Your task to perform on an android device: refresh tabs in the chrome app Image 0: 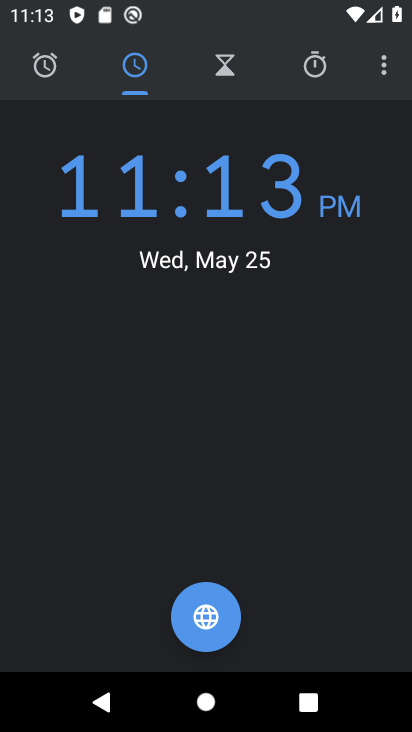
Step 0: press home button
Your task to perform on an android device: refresh tabs in the chrome app Image 1: 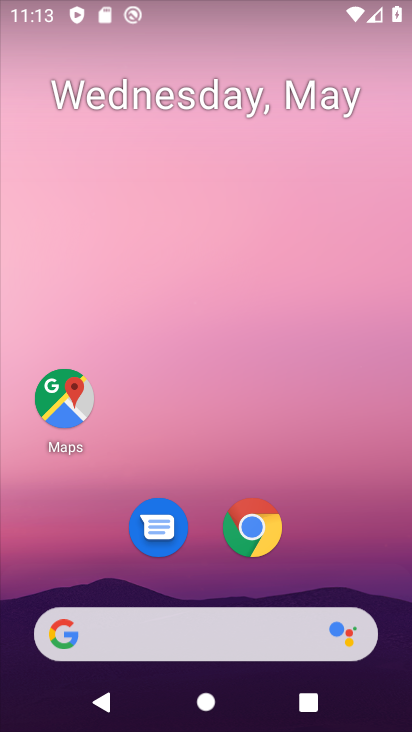
Step 1: click (255, 521)
Your task to perform on an android device: refresh tabs in the chrome app Image 2: 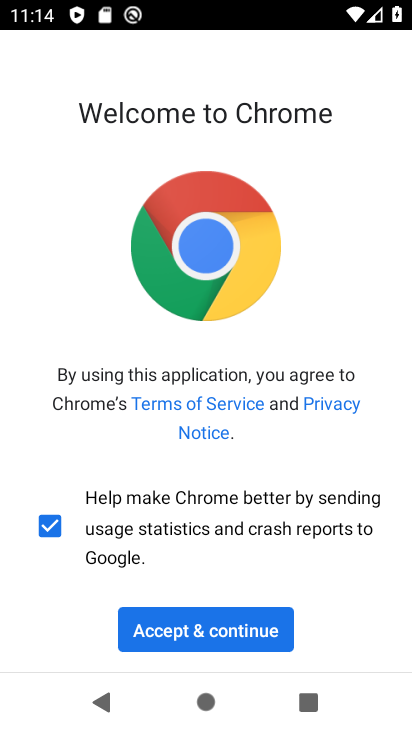
Step 2: click (238, 630)
Your task to perform on an android device: refresh tabs in the chrome app Image 3: 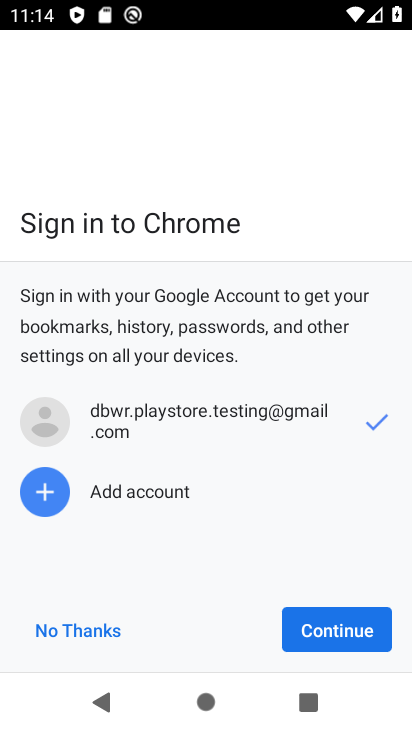
Step 3: click (330, 636)
Your task to perform on an android device: refresh tabs in the chrome app Image 4: 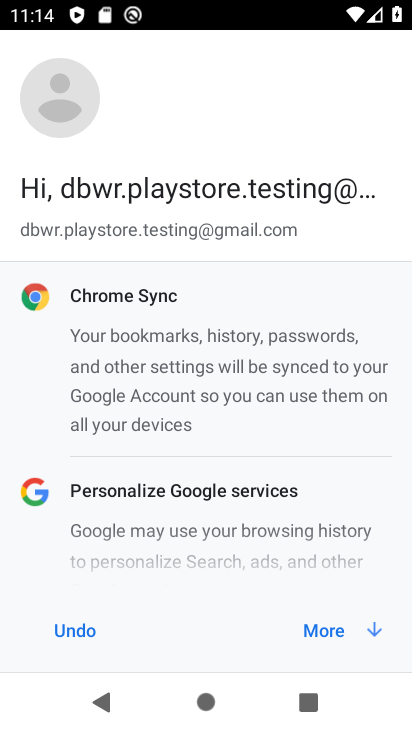
Step 4: click (338, 625)
Your task to perform on an android device: refresh tabs in the chrome app Image 5: 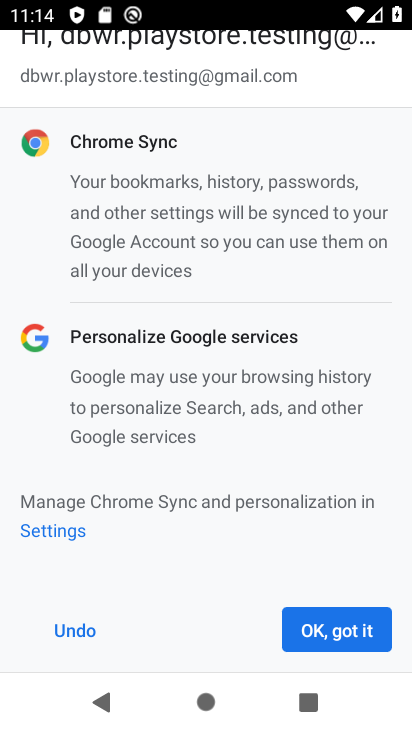
Step 5: click (338, 625)
Your task to perform on an android device: refresh tabs in the chrome app Image 6: 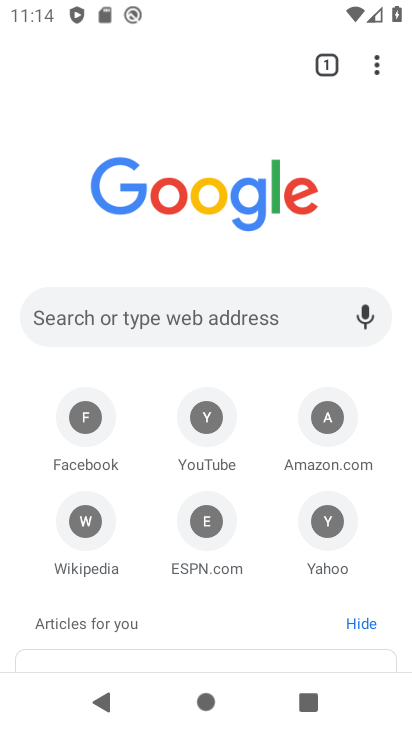
Step 6: click (378, 66)
Your task to perform on an android device: refresh tabs in the chrome app Image 7: 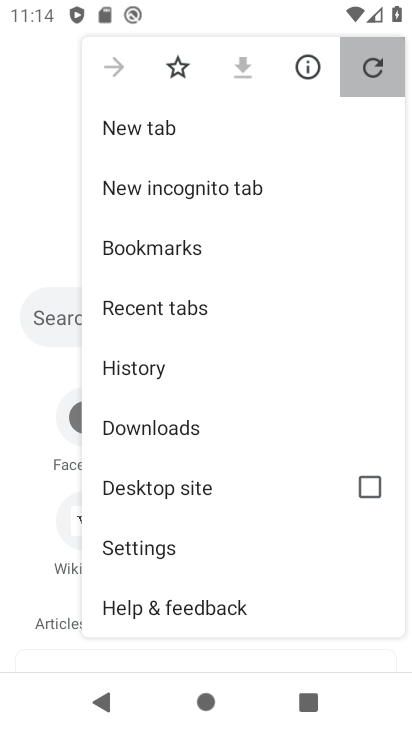
Step 7: click (378, 66)
Your task to perform on an android device: refresh tabs in the chrome app Image 8: 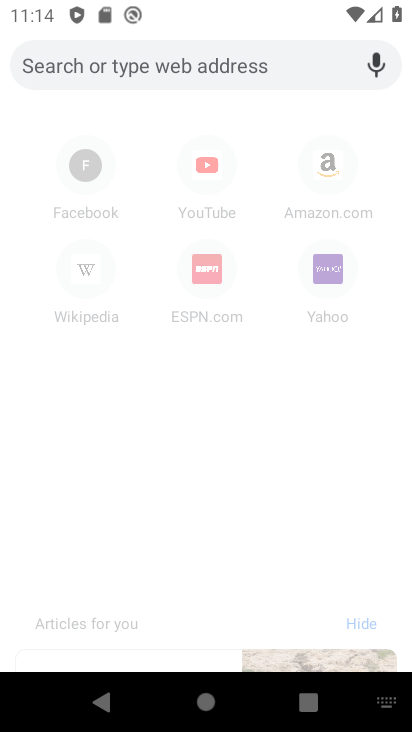
Step 8: task complete